Your task to perform on an android device: add a label to a message in the gmail app Image 0: 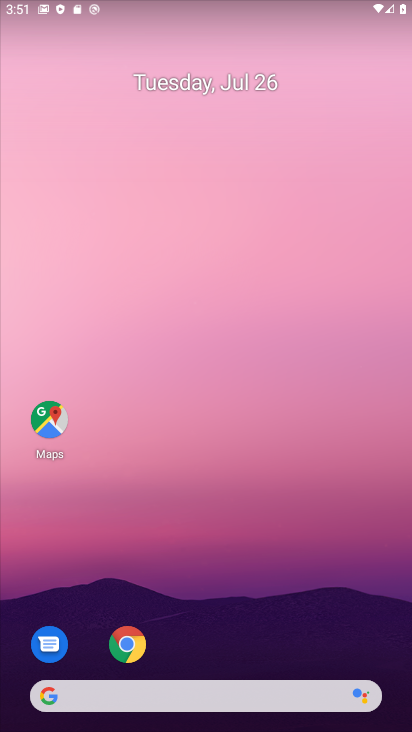
Step 0: drag from (372, 645) to (350, 104)
Your task to perform on an android device: add a label to a message in the gmail app Image 1: 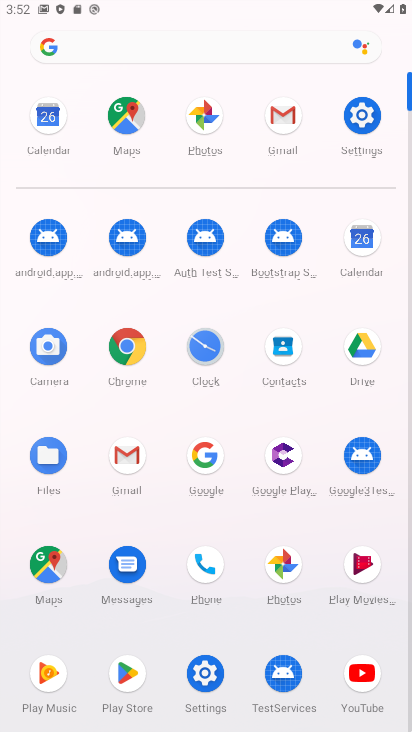
Step 1: click (128, 456)
Your task to perform on an android device: add a label to a message in the gmail app Image 2: 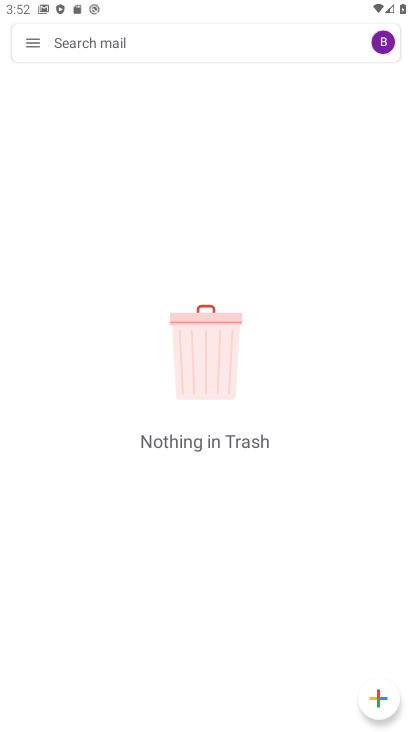
Step 2: click (31, 45)
Your task to perform on an android device: add a label to a message in the gmail app Image 3: 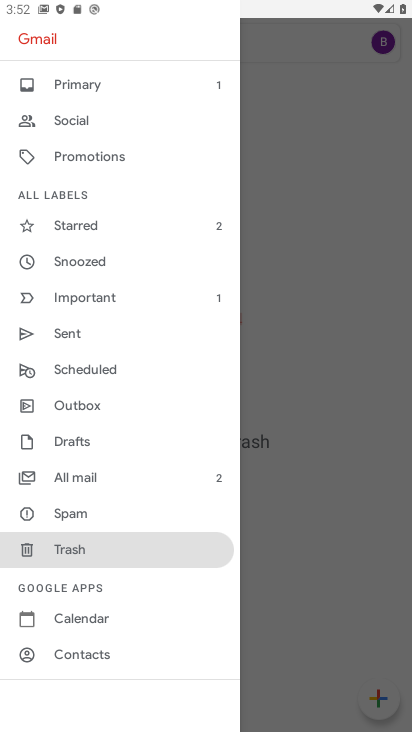
Step 3: click (66, 469)
Your task to perform on an android device: add a label to a message in the gmail app Image 4: 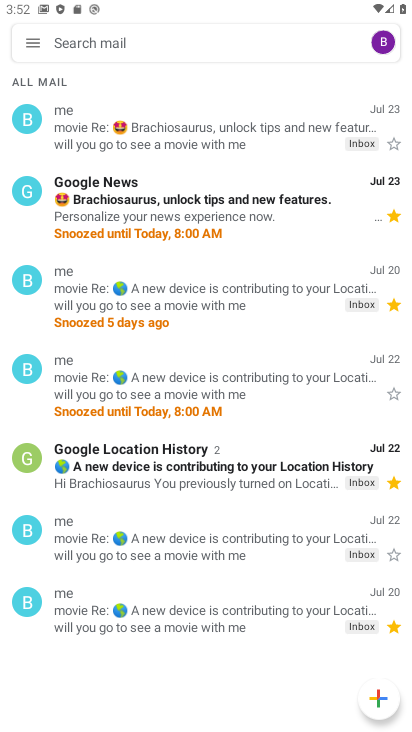
Step 4: click (201, 128)
Your task to perform on an android device: add a label to a message in the gmail app Image 5: 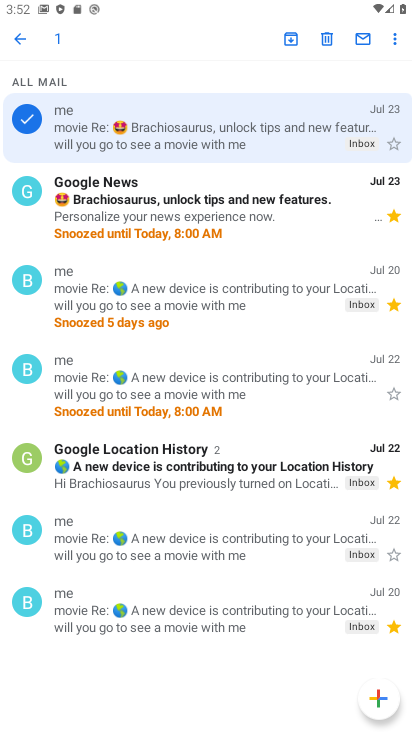
Step 5: click (393, 39)
Your task to perform on an android device: add a label to a message in the gmail app Image 6: 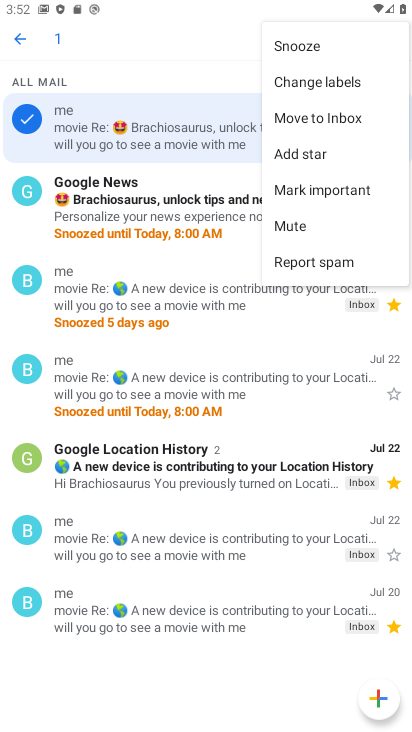
Step 6: click (313, 83)
Your task to perform on an android device: add a label to a message in the gmail app Image 7: 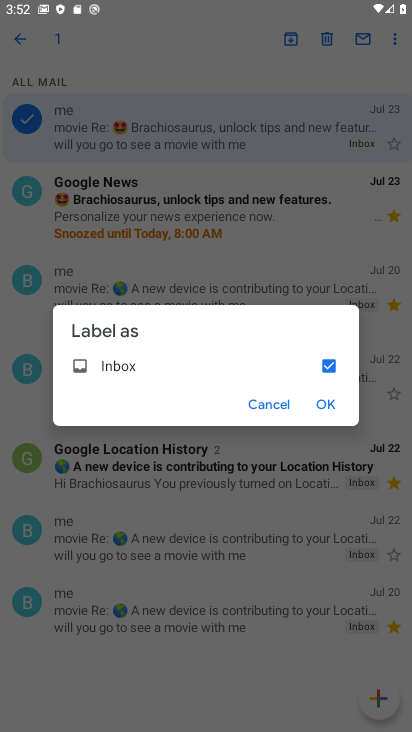
Step 7: click (326, 404)
Your task to perform on an android device: add a label to a message in the gmail app Image 8: 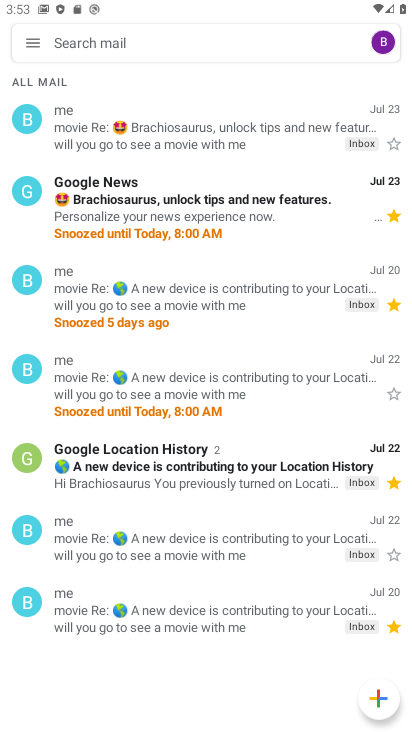
Step 8: task complete